Your task to perform on an android device: When is my next meeting? Image 0: 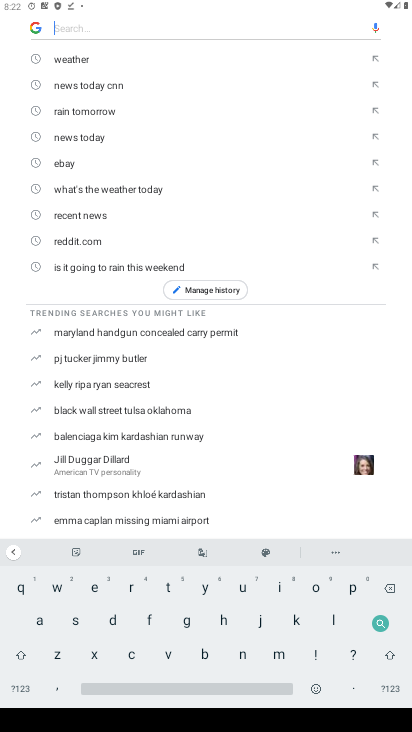
Step 0: press home button
Your task to perform on an android device: When is my next meeting? Image 1: 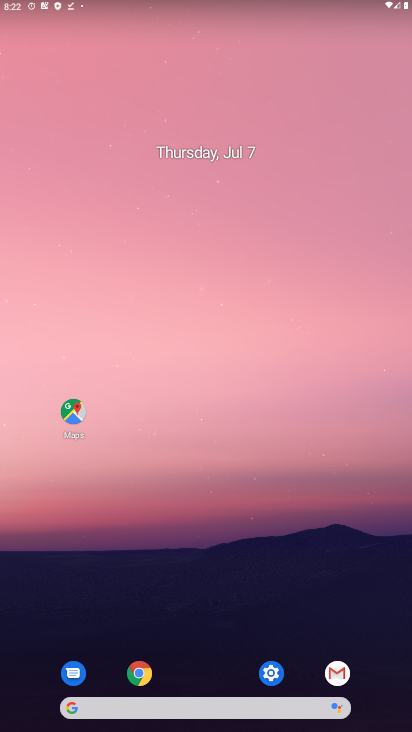
Step 1: drag from (176, 718) to (267, 56)
Your task to perform on an android device: When is my next meeting? Image 2: 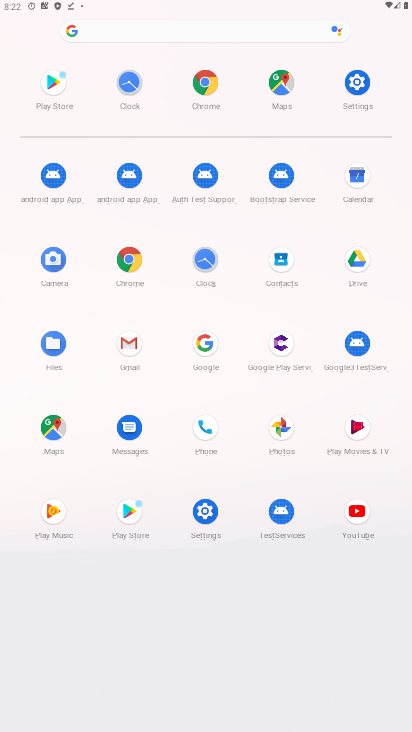
Step 2: click (362, 188)
Your task to perform on an android device: When is my next meeting? Image 3: 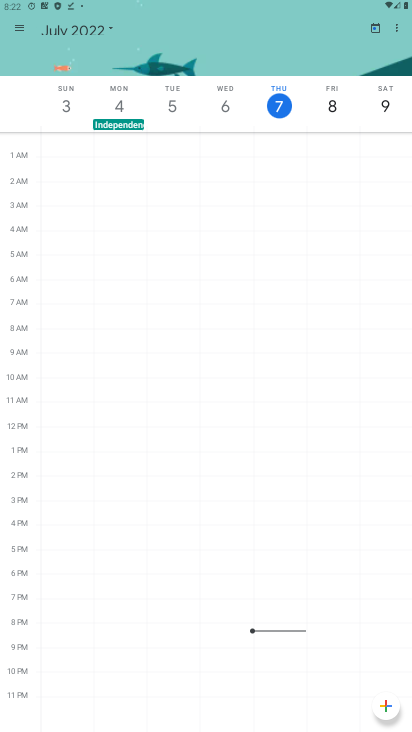
Step 3: click (16, 24)
Your task to perform on an android device: When is my next meeting? Image 4: 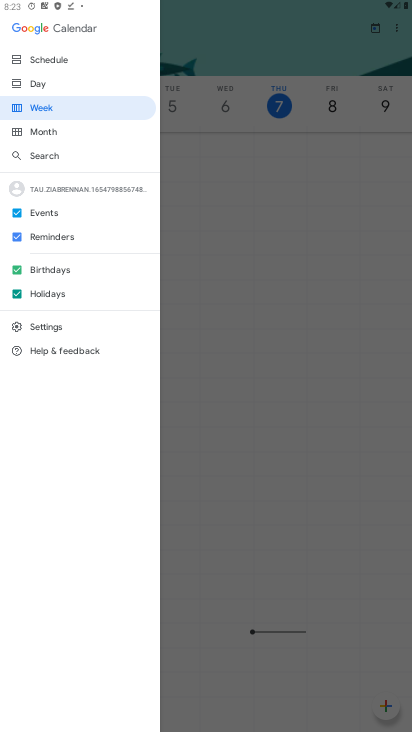
Step 4: click (74, 62)
Your task to perform on an android device: When is my next meeting? Image 5: 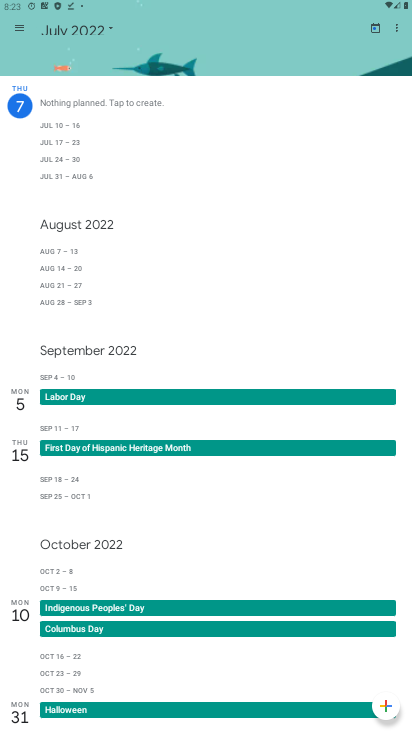
Step 5: task complete